Your task to perform on an android device: What is the recent news? Image 0: 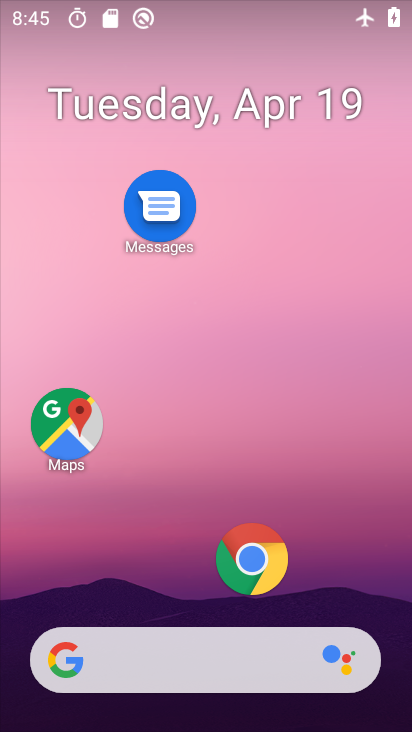
Step 0: drag from (92, 293) to (408, 15)
Your task to perform on an android device: What is the recent news? Image 1: 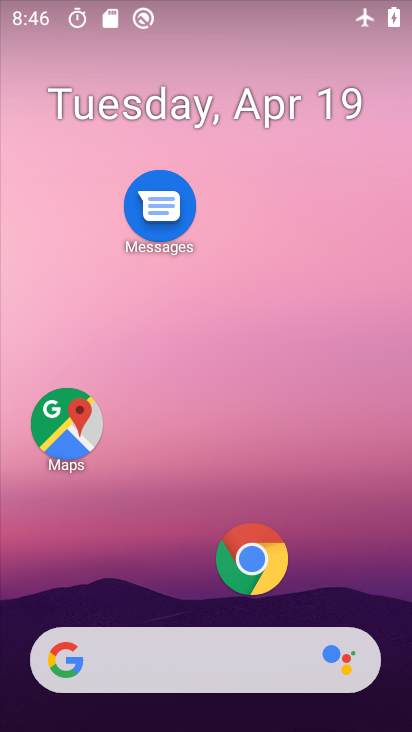
Step 1: task complete